Your task to perform on an android device: Go to ESPN.com Image 0: 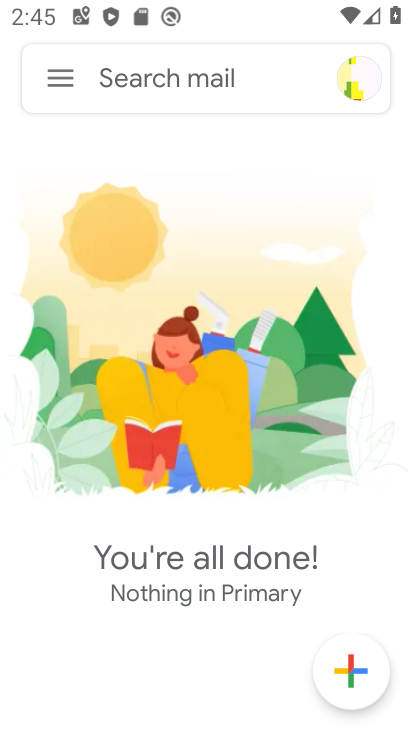
Step 0: press home button
Your task to perform on an android device: Go to ESPN.com Image 1: 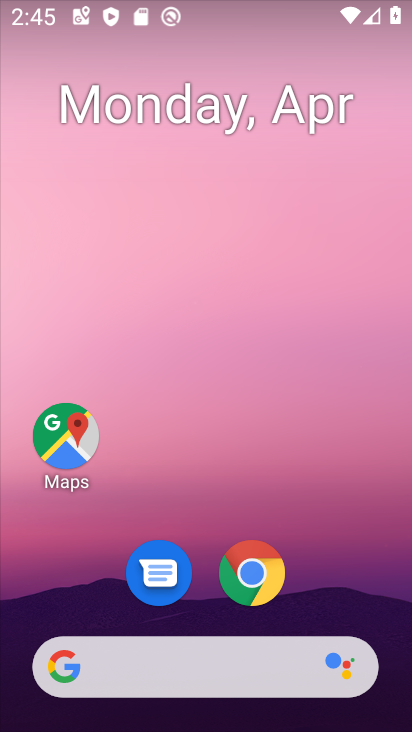
Step 1: drag from (360, 582) to (363, 62)
Your task to perform on an android device: Go to ESPN.com Image 2: 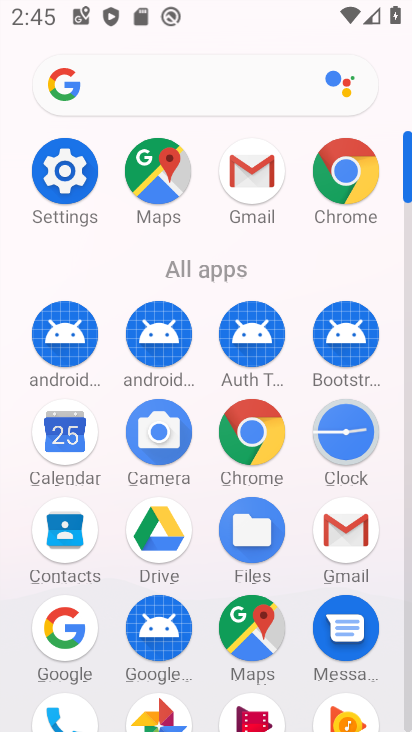
Step 2: click (355, 177)
Your task to perform on an android device: Go to ESPN.com Image 3: 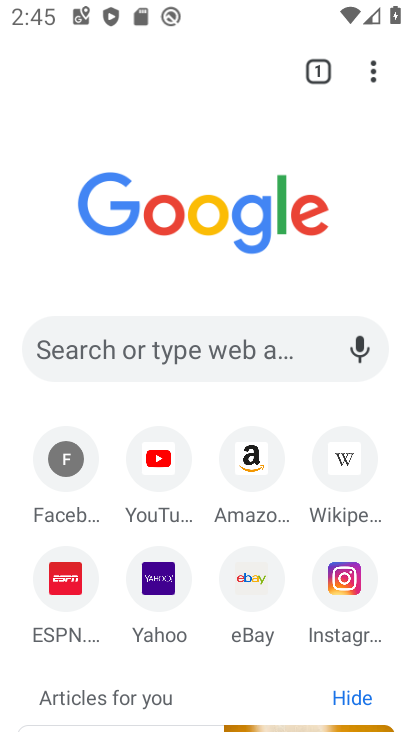
Step 3: click (69, 587)
Your task to perform on an android device: Go to ESPN.com Image 4: 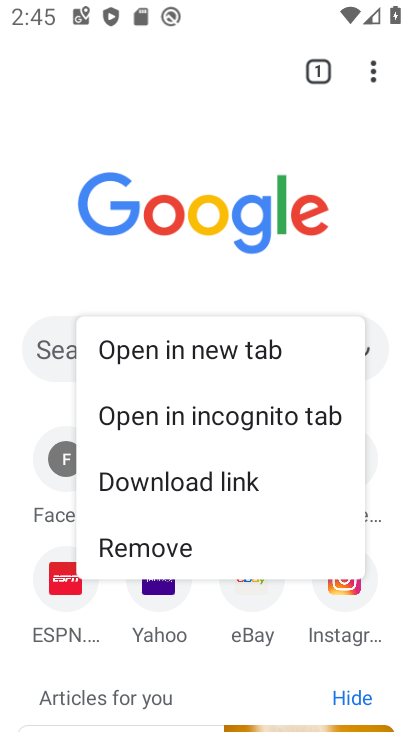
Step 4: click (58, 588)
Your task to perform on an android device: Go to ESPN.com Image 5: 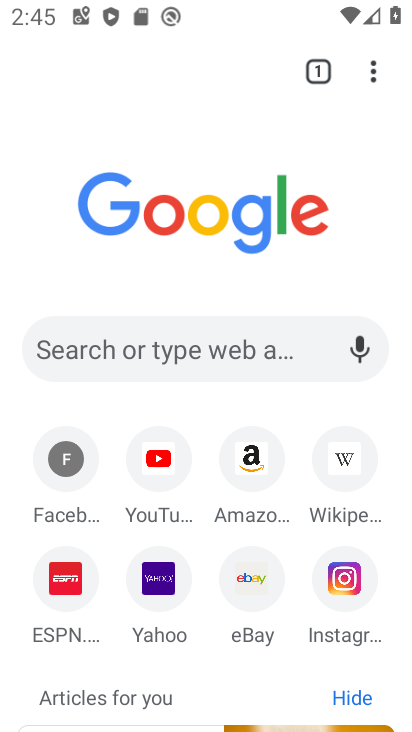
Step 5: click (73, 586)
Your task to perform on an android device: Go to ESPN.com Image 6: 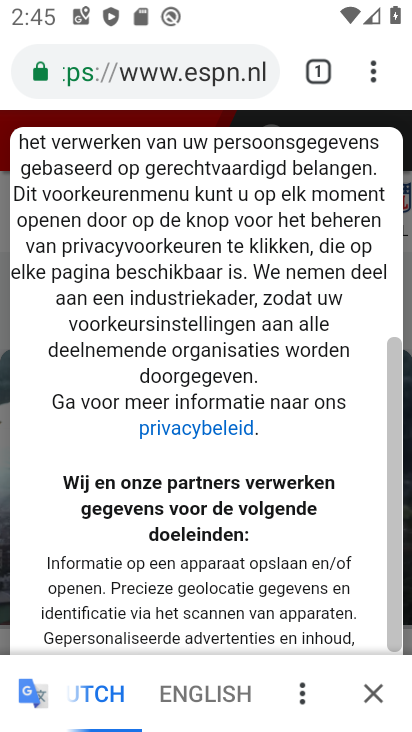
Step 6: task complete